Your task to perform on an android device: clear history in the chrome app Image 0: 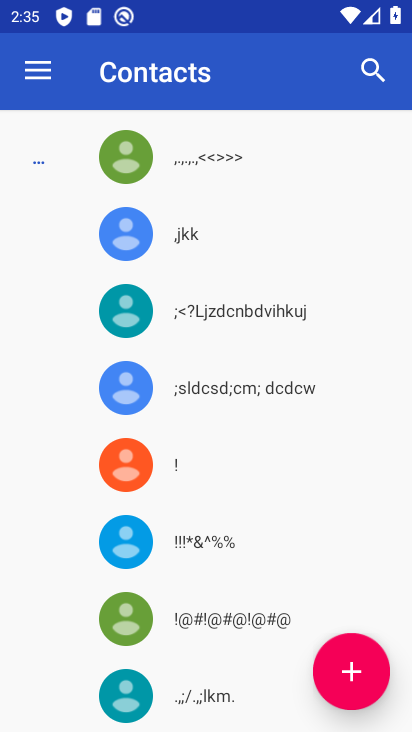
Step 0: press home button
Your task to perform on an android device: clear history in the chrome app Image 1: 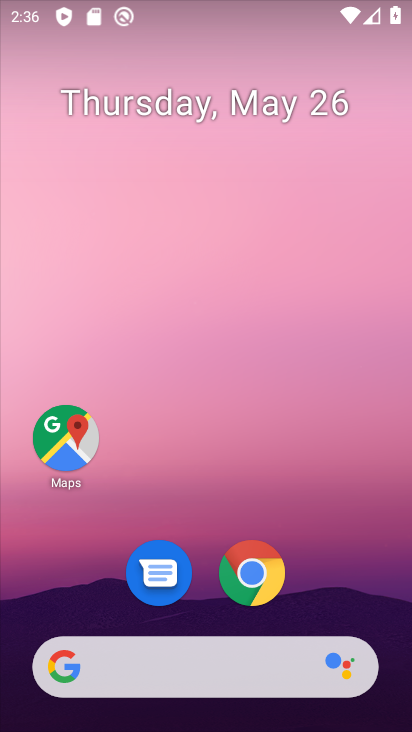
Step 1: click (269, 579)
Your task to perform on an android device: clear history in the chrome app Image 2: 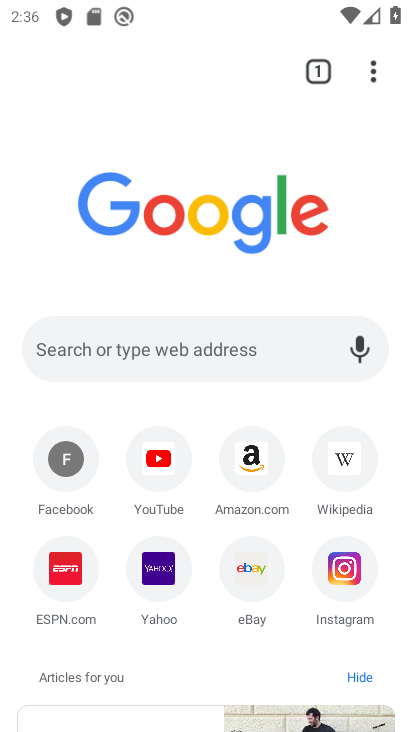
Step 2: task complete